Your task to perform on an android device: check storage Image 0: 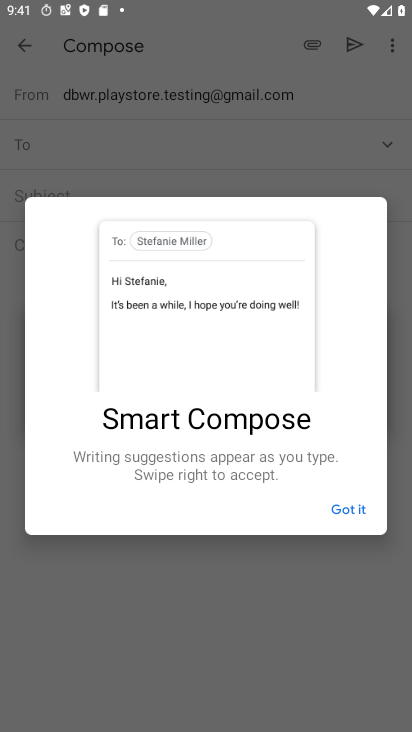
Step 0: press home button
Your task to perform on an android device: check storage Image 1: 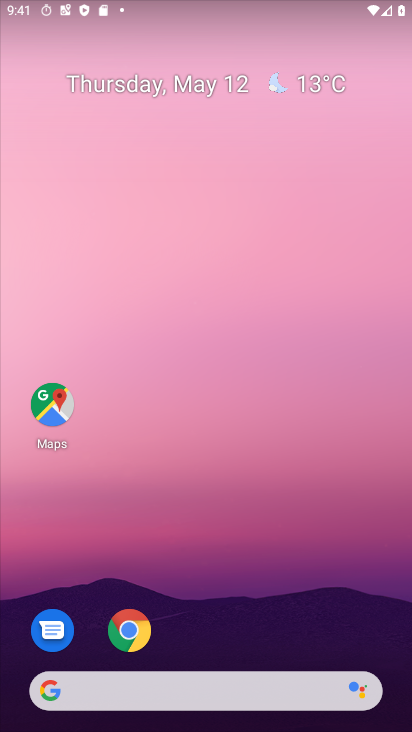
Step 1: drag from (242, 681) to (207, 29)
Your task to perform on an android device: check storage Image 2: 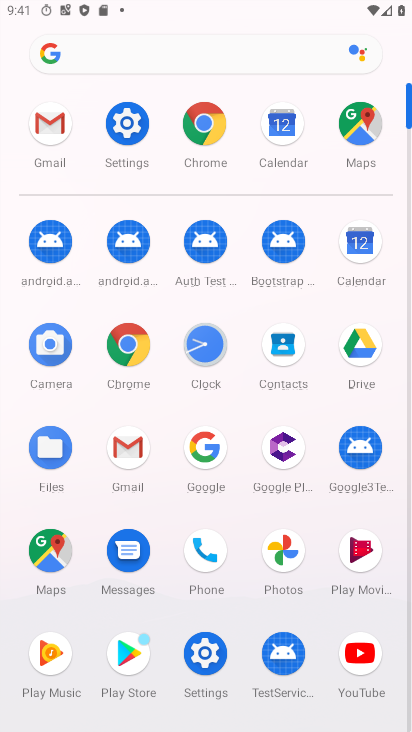
Step 2: click (214, 669)
Your task to perform on an android device: check storage Image 3: 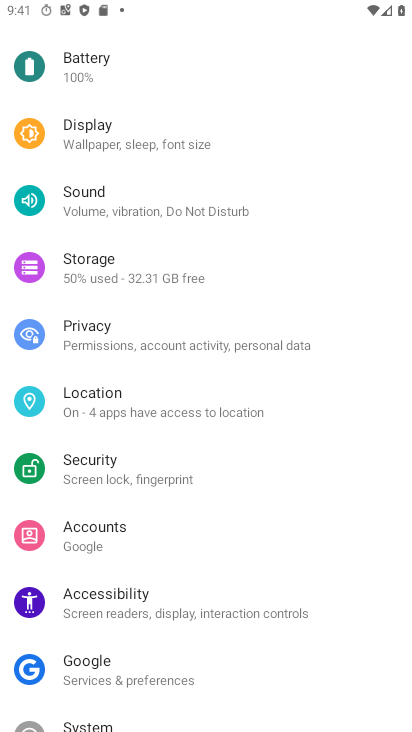
Step 3: click (99, 268)
Your task to perform on an android device: check storage Image 4: 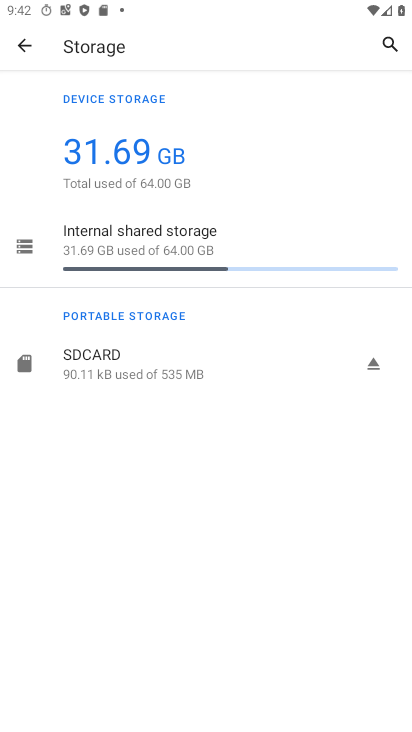
Step 4: click (177, 260)
Your task to perform on an android device: check storage Image 5: 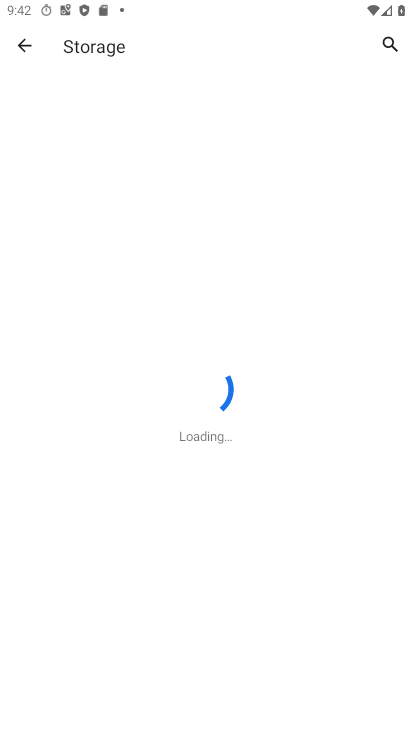
Step 5: task complete